Your task to perform on an android device: move an email to a new category in the gmail app Image 0: 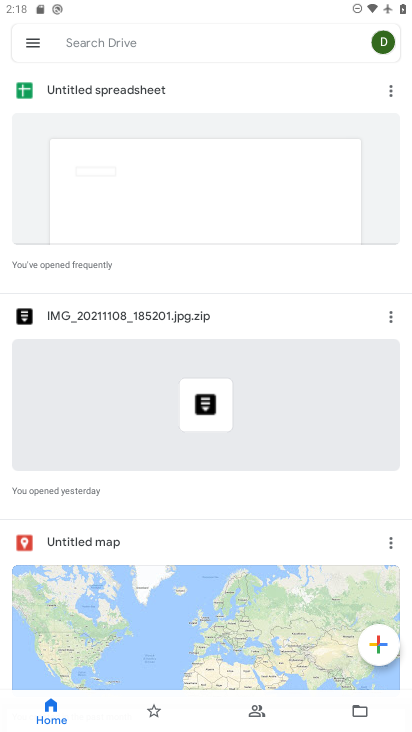
Step 0: press home button
Your task to perform on an android device: move an email to a new category in the gmail app Image 1: 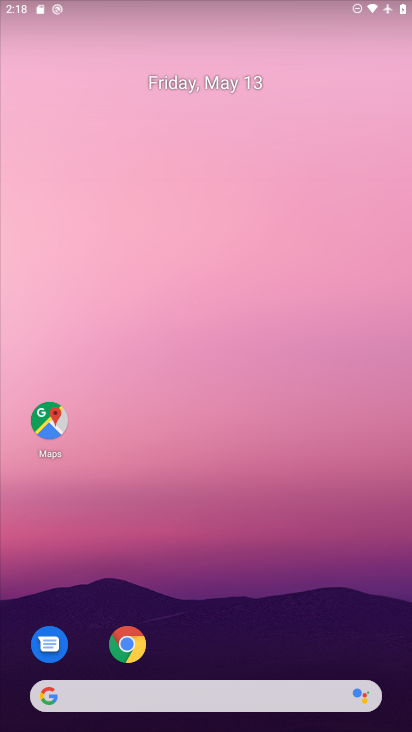
Step 1: drag from (365, 635) to (245, 53)
Your task to perform on an android device: move an email to a new category in the gmail app Image 2: 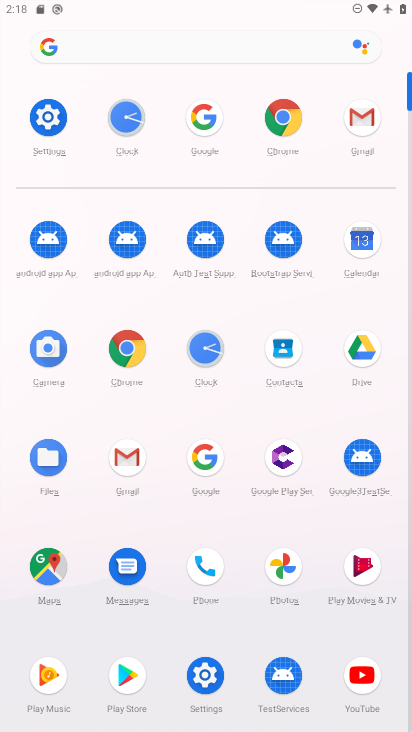
Step 2: click (121, 438)
Your task to perform on an android device: move an email to a new category in the gmail app Image 3: 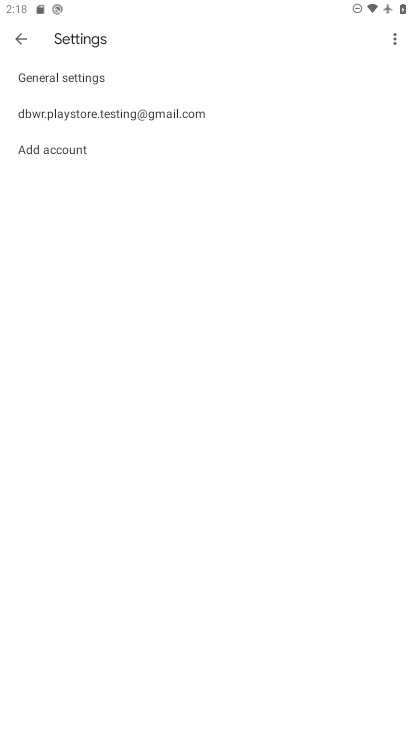
Step 3: click (183, 116)
Your task to perform on an android device: move an email to a new category in the gmail app Image 4: 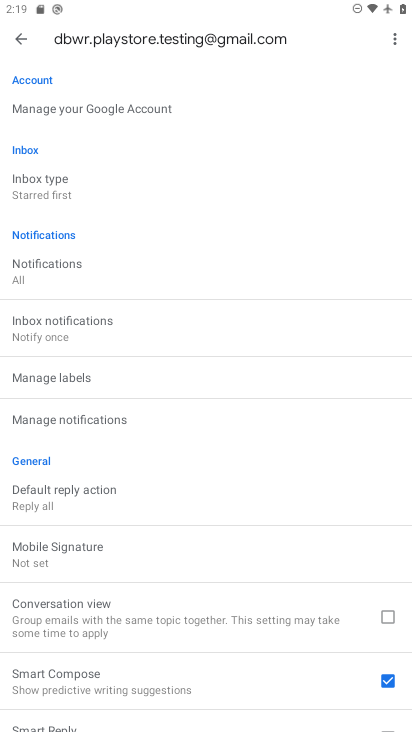
Step 4: task complete